Your task to perform on an android device: all mails in gmail Image 0: 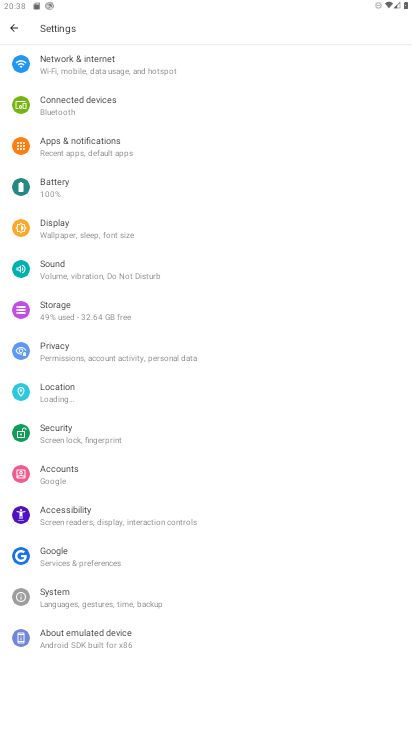
Step 0: press home button
Your task to perform on an android device: all mails in gmail Image 1: 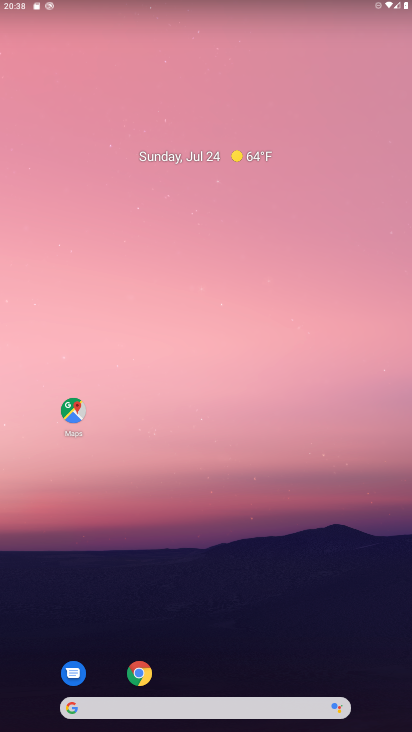
Step 1: drag from (293, 630) to (241, 122)
Your task to perform on an android device: all mails in gmail Image 2: 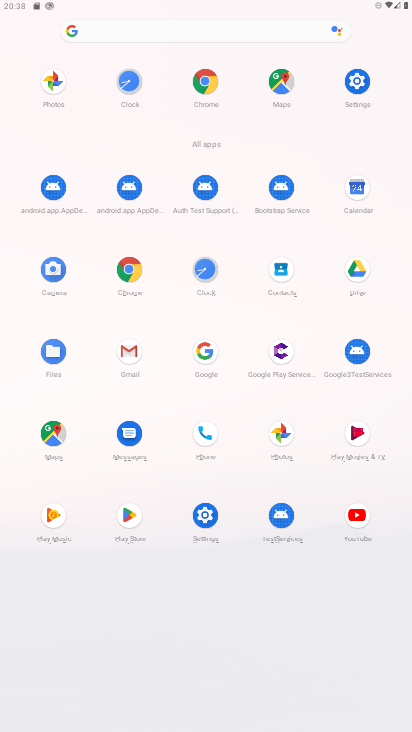
Step 2: click (127, 349)
Your task to perform on an android device: all mails in gmail Image 3: 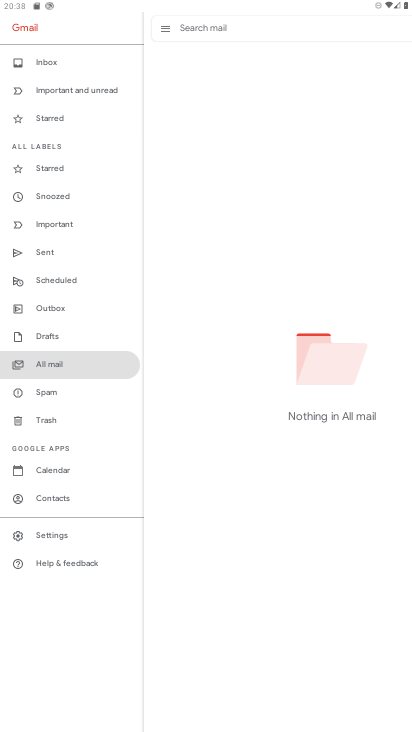
Step 3: task complete